Your task to perform on an android device: open a bookmark in the chrome app Image 0: 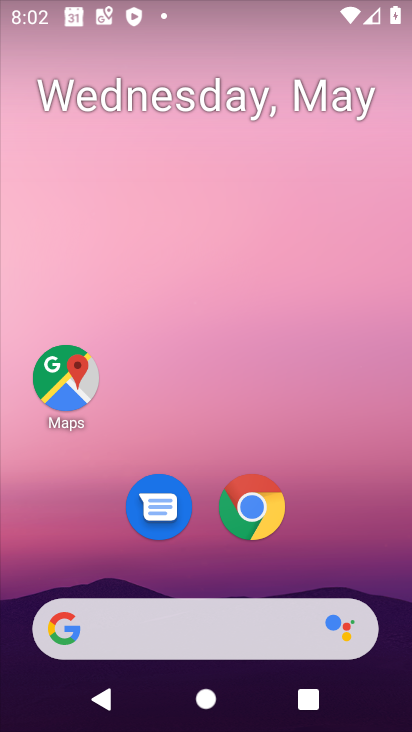
Step 0: click (228, 507)
Your task to perform on an android device: open a bookmark in the chrome app Image 1: 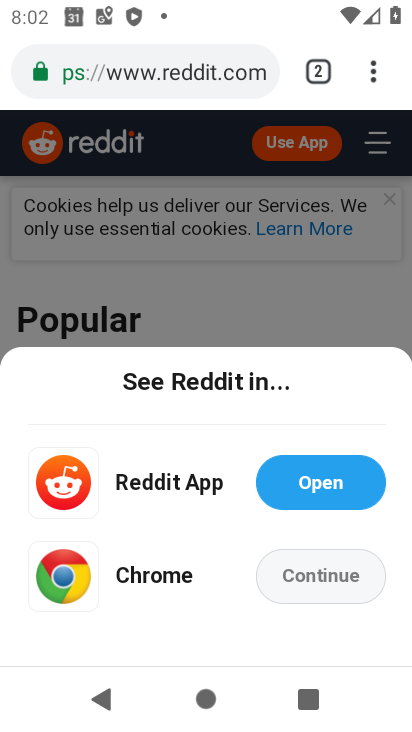
Step 1: click (379, 55)
Your task to perform on an android device: open a bookmark in the chrome app Image 2: 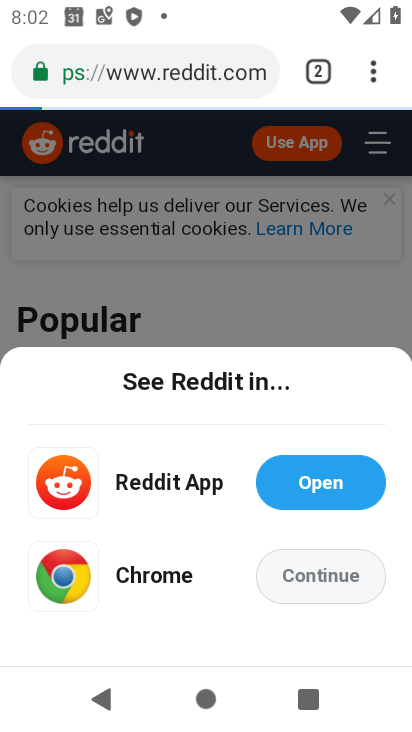
Step 2: click (377, 71)
Your task to perform on an android device: open a bookmark in the chrome app Image 3: 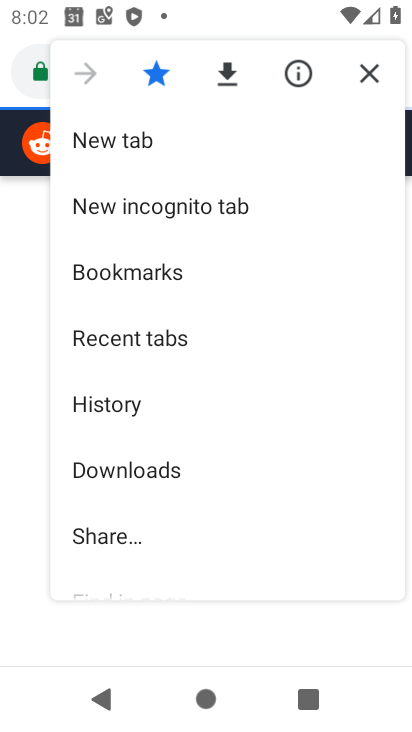
Step 3: click (174, 278)
Your task to perform on an android device: open a bookmark in the chrome app Image 4: 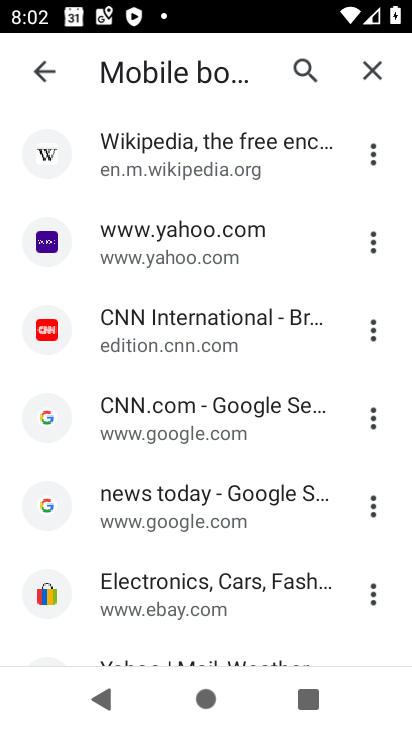
Step 4: task complete